Your task to perform on an android device: check the backup settings in the google photos Image 0: 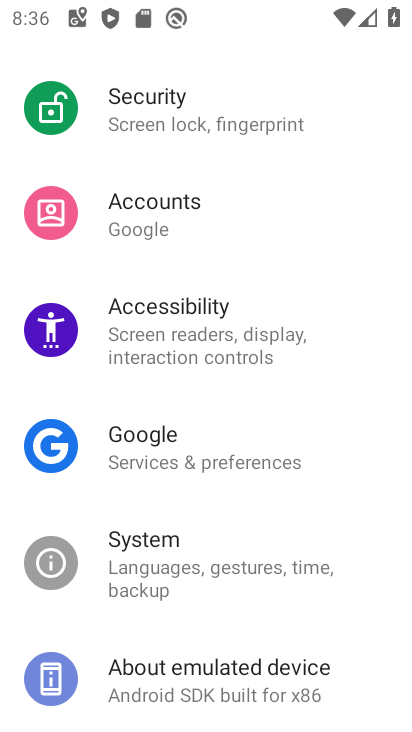
Step 0: drag from (347, 541) to (384, 279)
Your task to perform on an android device: check the backup settings in the google photos Image 1: 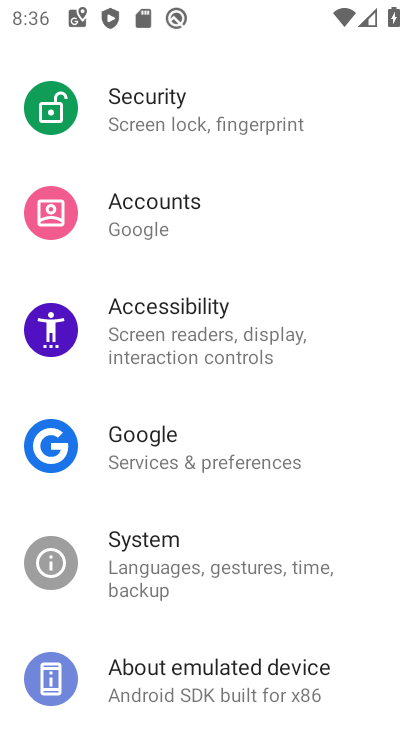
Step 1: press home button
Your task to perform on an android device: check the backup settings in the google photos Image 2: 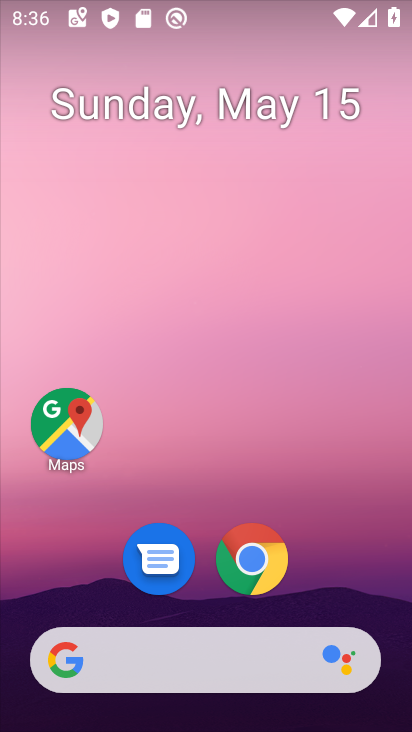
Step 2: drag from (352, 576) to (366, 119)
Your task to perform on an android device: check the backup settings in the google photos Image 3: 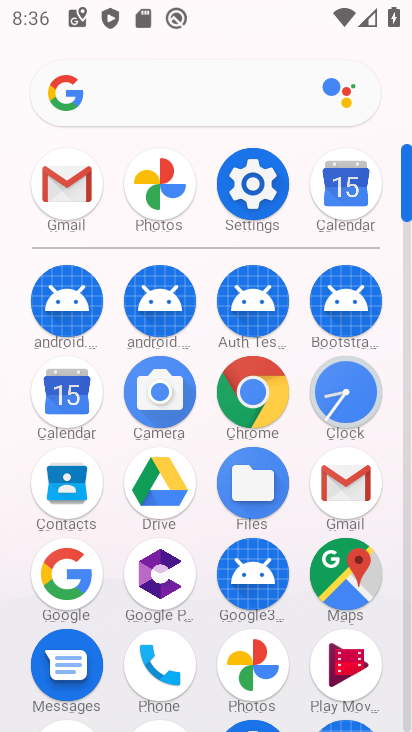
Step 3: click (257, 674)
Your task to perform on an android device: check the backup settings in the google photos Image 4: 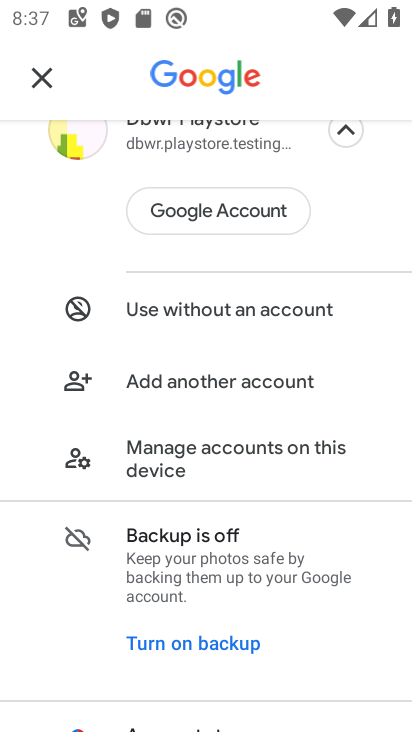
Step 4: drag from (269, 312) to (276, 548)
Your task to perform on an android device: check the backup settings in the google photos Image 5: 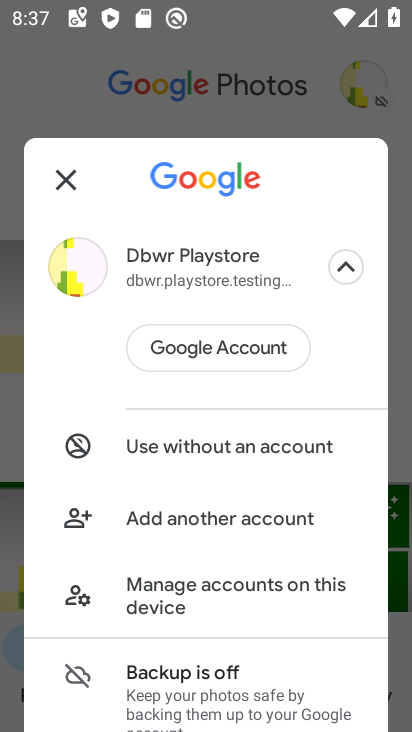
Step 5: click (66, 193)
Your task to perform on an android device: check the backup settings in the google photos Image 6: 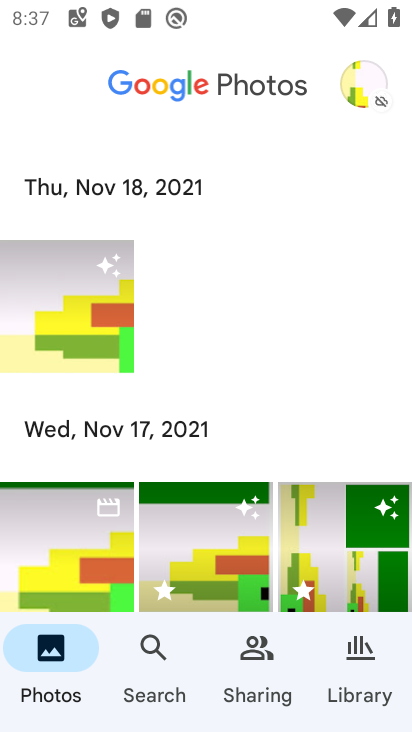
Step 6: click (401, 84)
Your task to perform on an android device: check the backup settings in the google photos Image 7: 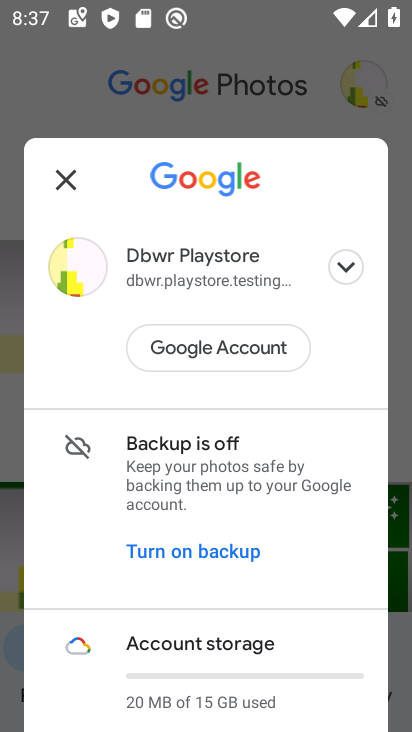
Step 7: click (184, 510)
Your task to perform on an android device: check the backup settings in the google photos Image 8: 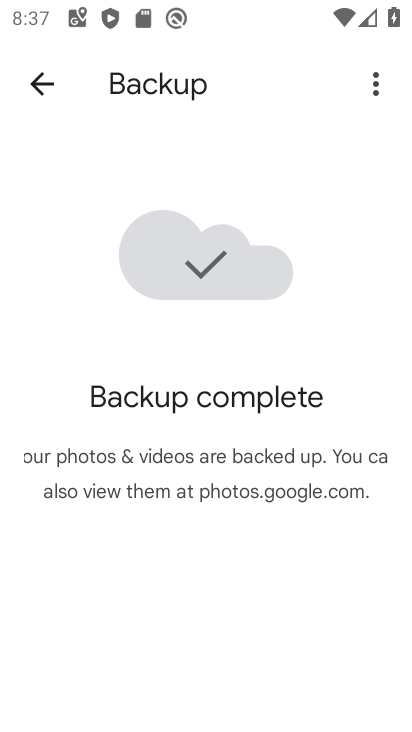
Step 8: task complete